Your task to perform on an android device: Go to privacy settings Image 0: 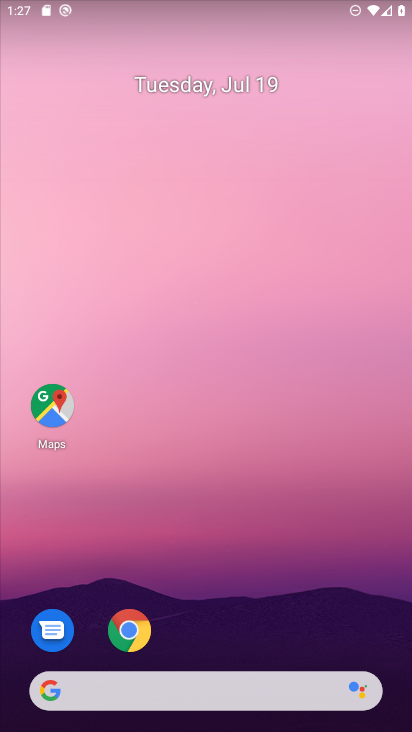
Step 0: press home button
Your task to perform on an android device: Go to privacy settings Image 1: 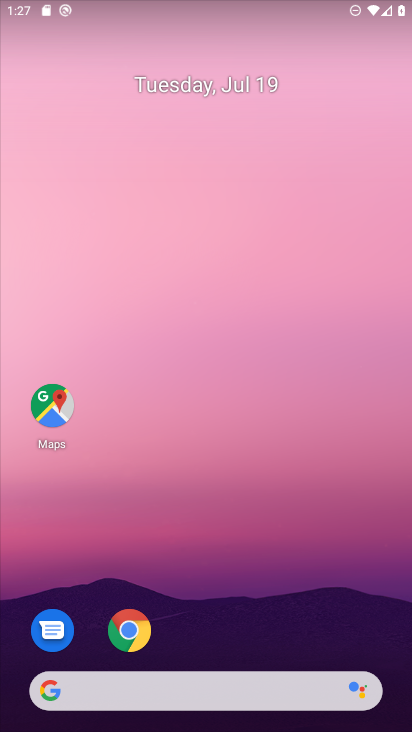
Step 1: drag from (192, 705) to (349, 65)
Your task to perform on an android device: Go to privacy settings Image 2: 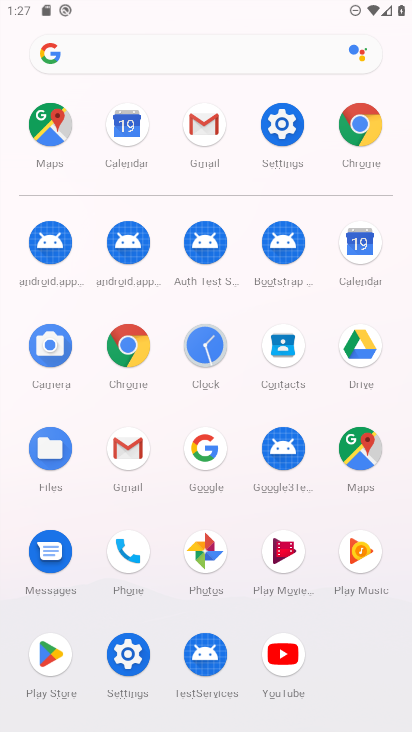
Step 2: click (284, 115)
Your task to perform on an android device: Go to privacy settings Image 3: 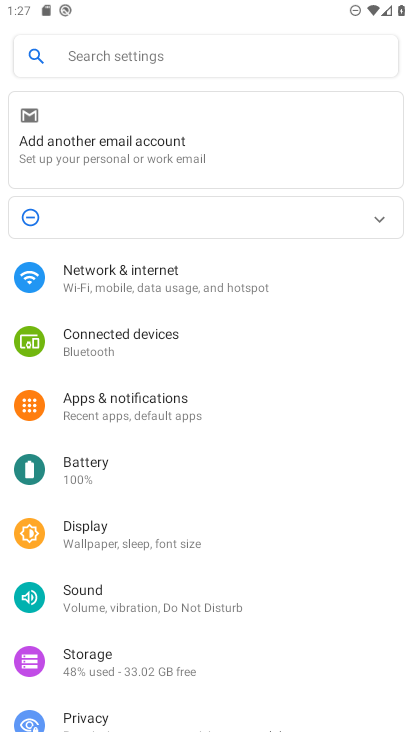
Step 3: drag from (302, 537) to (379, 232)
Your task to perform on an android device: Go to privacy settings Image 4: 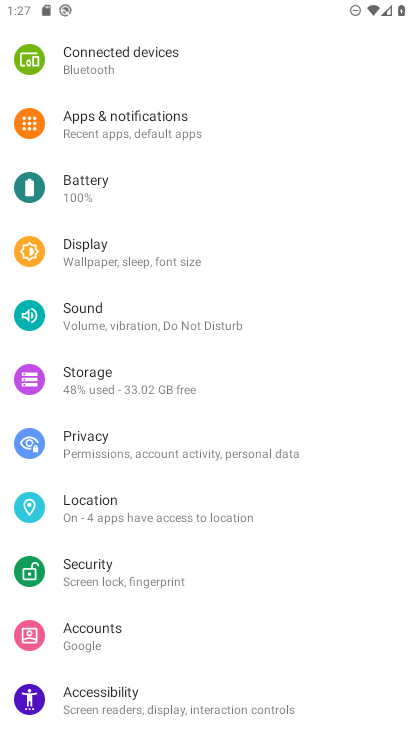
Step 4: click (107, 443)
Your task to perform on an android device: Go to privacy settings Image 5: 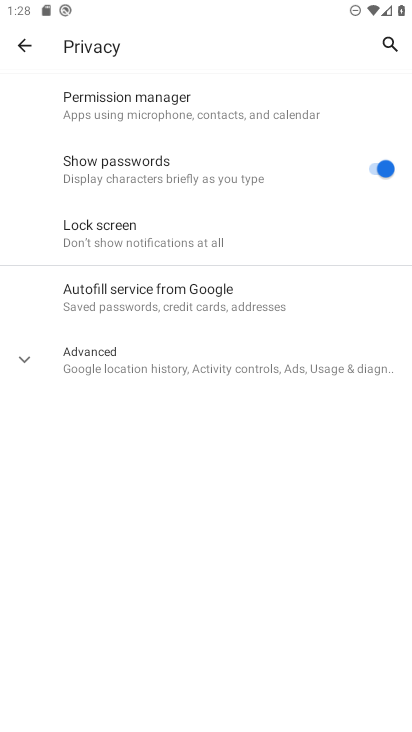
Step 5: task complete